Your task to perform on an android device: Go to location settings Image 0: 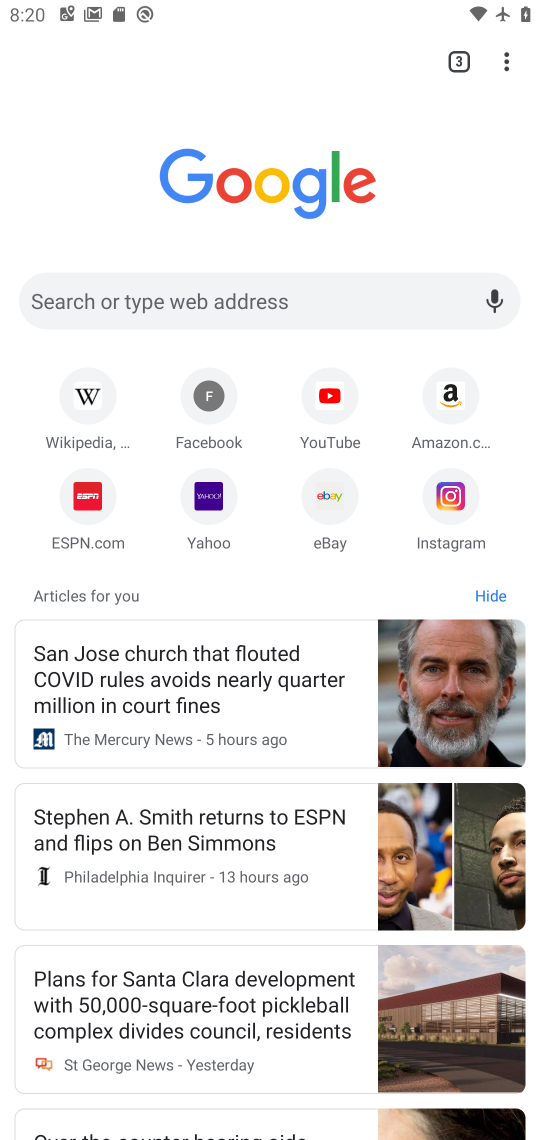
Step 0: press home button
Your task to perform on an android device: Go to location settings Image 1: 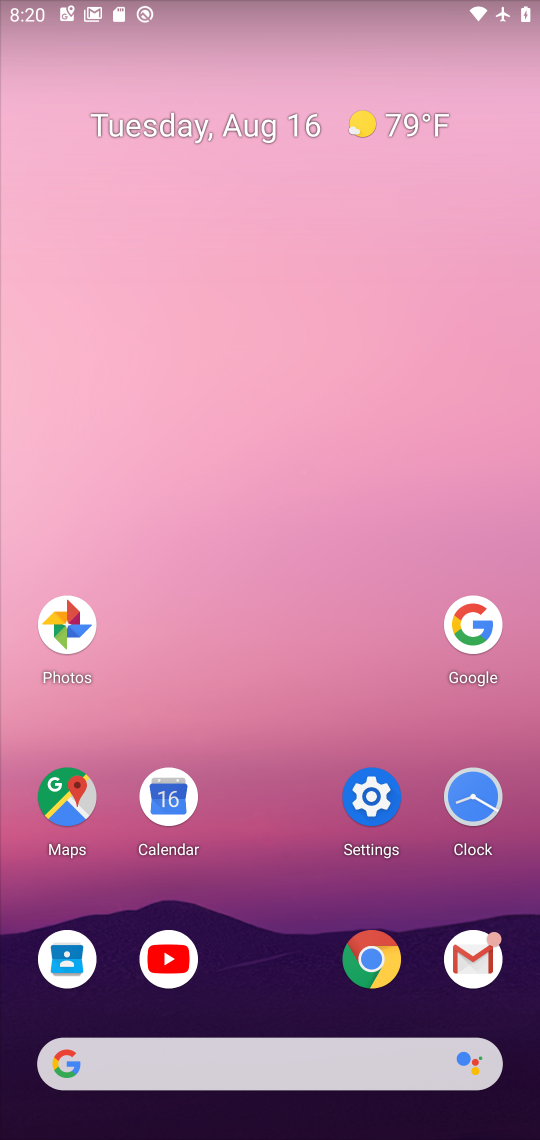
Step 1: click (375, 793)
Your task to perform on an android device: Go to location settings Image 2: 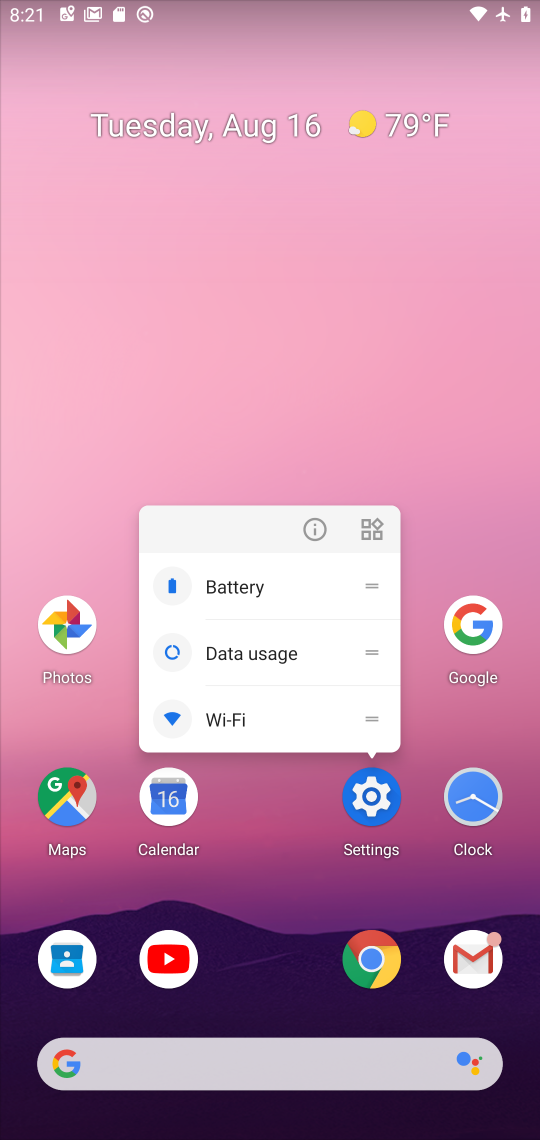
Step 2: click (371, 801)
Your task to perform on an android device: Go to location settings Image 3: 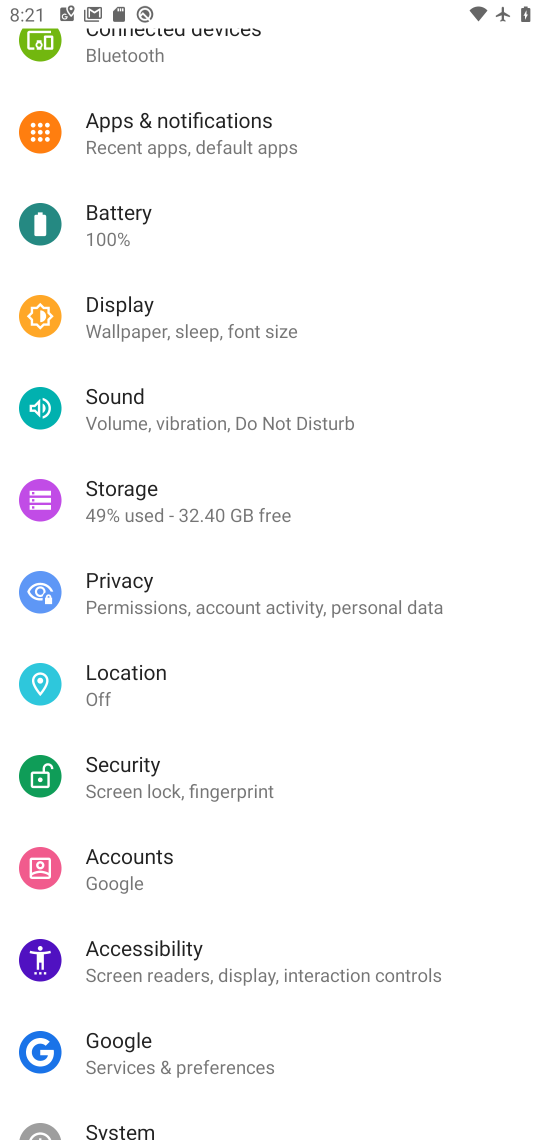
Step 3: click (127, 678)
Your task to perform on an android device: Go to location settings Image 4: 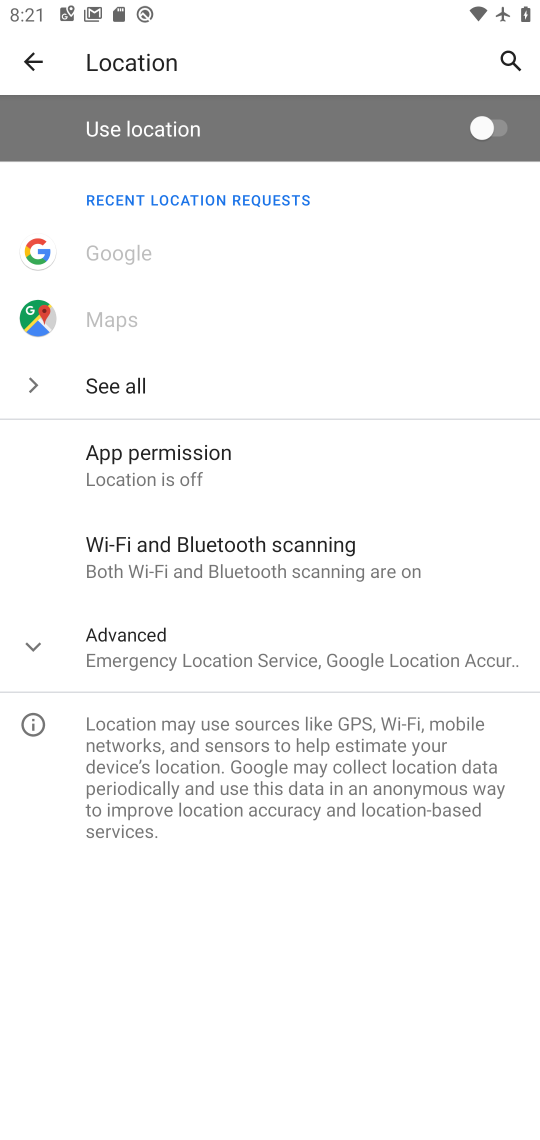
Step 4: task complete